Your task to perform on an android device: turn off airplane mode Image 0: 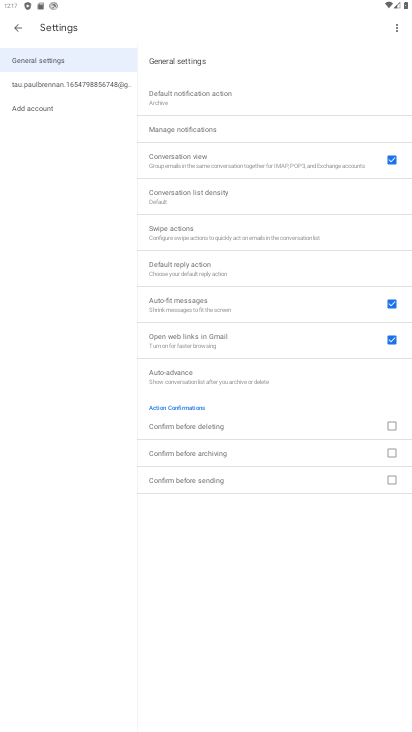
Step 0: press home button
Your task to perform on an android device: turn off airplane mode Image 1: 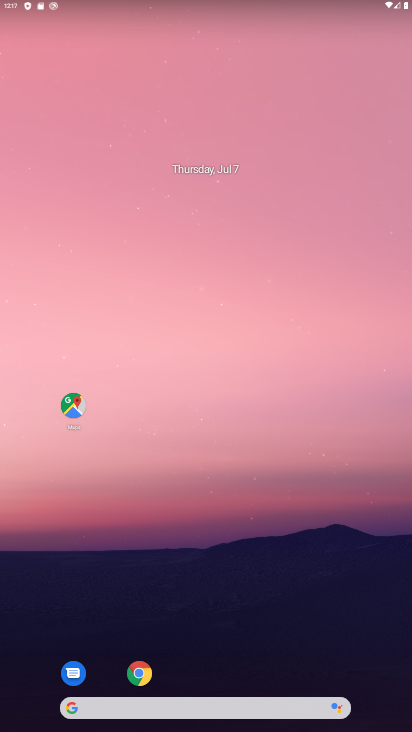
Step 1: drag from (273, 656) to (328, 197)
Your task to perform on an android device: turn off airplane mode Image 2: 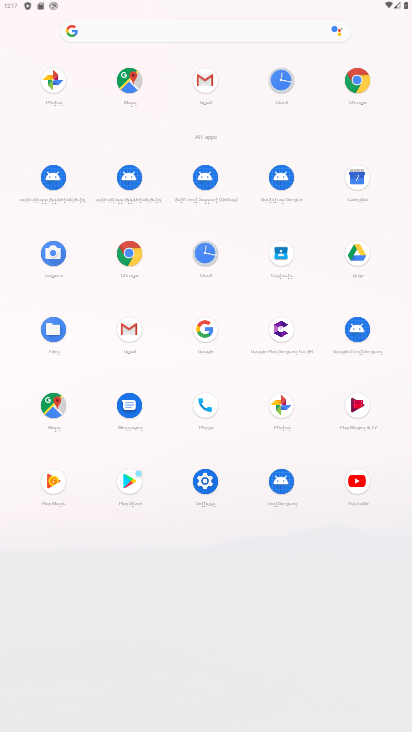
Step 2: click (210, 483)
Your task to perform on an android device: turn off airplane mode Image 3: 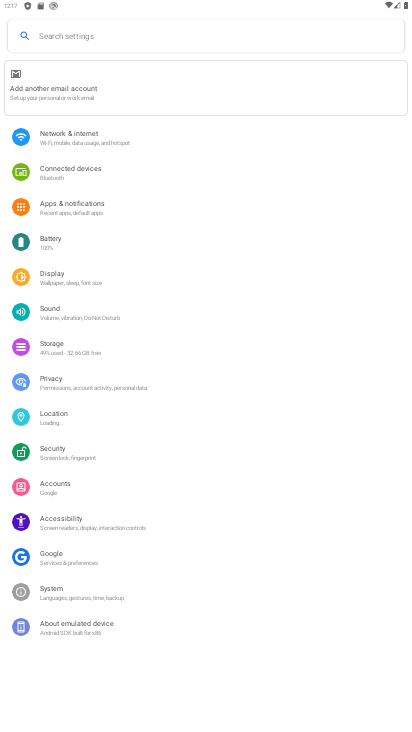
Step 3: click (93, 145)
Your task to perform on an android device: turn off airplane mode Image 4: 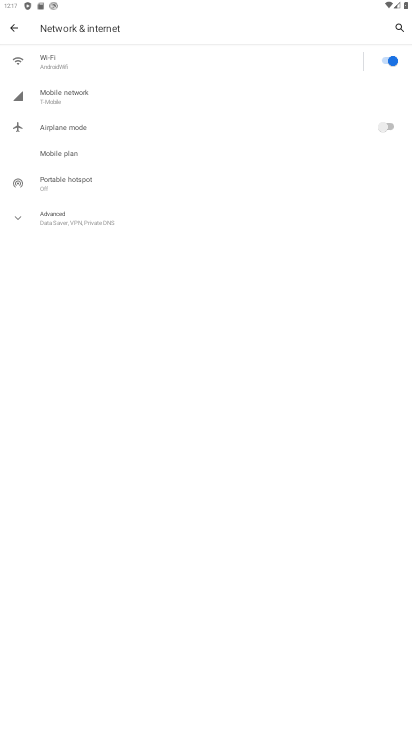
Step 4: click (110, 134)
Your task to perform on an android device: turn off airplane mode Image 5: 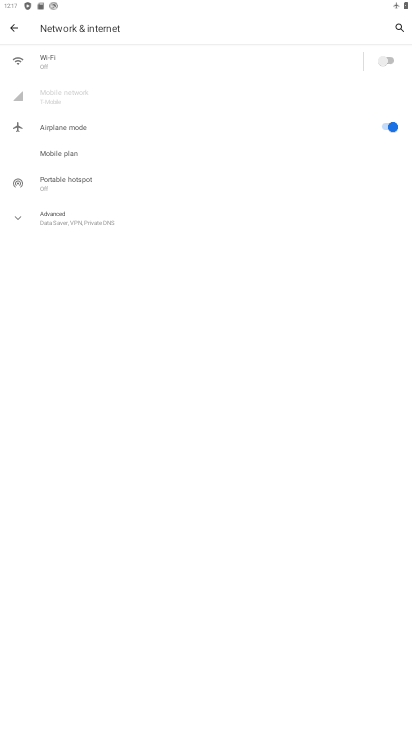
Step 5: click (387, 129)
Your task to perform on an android device: turn off airplane mode Image 6: 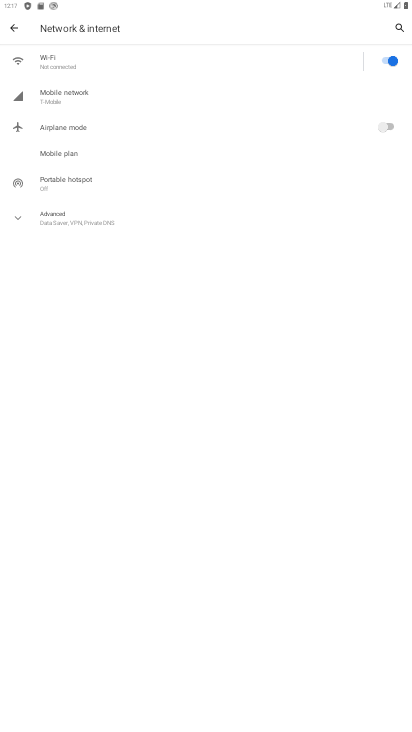
Step 6: task complete